Your task to perform on an android device: Go to Android settings Image 0: 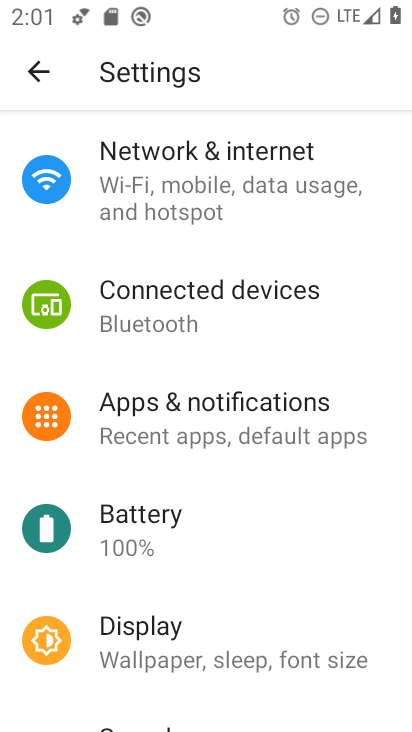
Step 0: drag from (246, 583) to (205, 11)
Your task to perform on an android device: Go to Android settings Image 1: 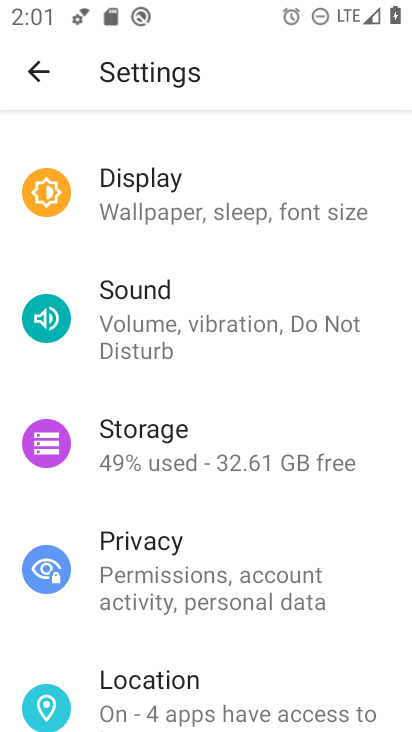
Step 1: drag from (247, 643) to (204, 13)
Your task to perform on an android device: Go to Android settings Image 2: 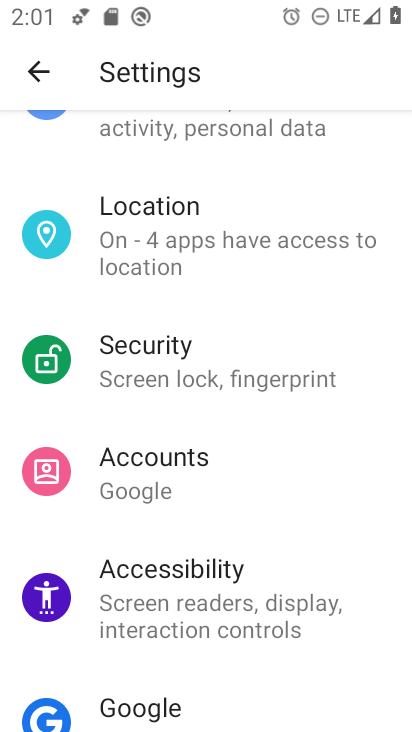
Step 2: drag from (224, 506) to (185, 231)
Your task to perform on an android device: Go to Android settings Image 3: 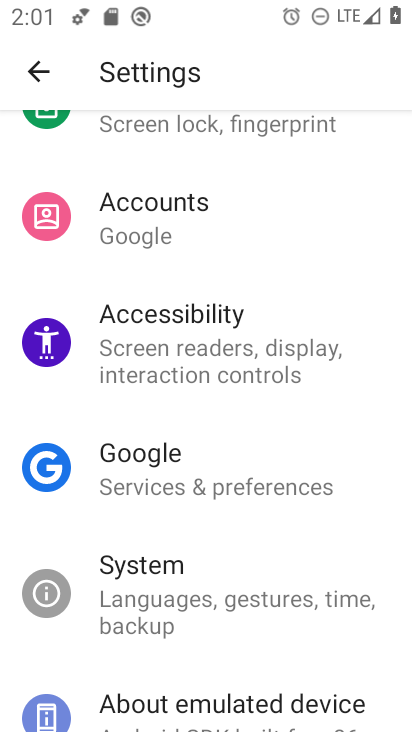
Step 3: click (167, 684)
Your task to perform on an android device: Go to Android settings Image 4: 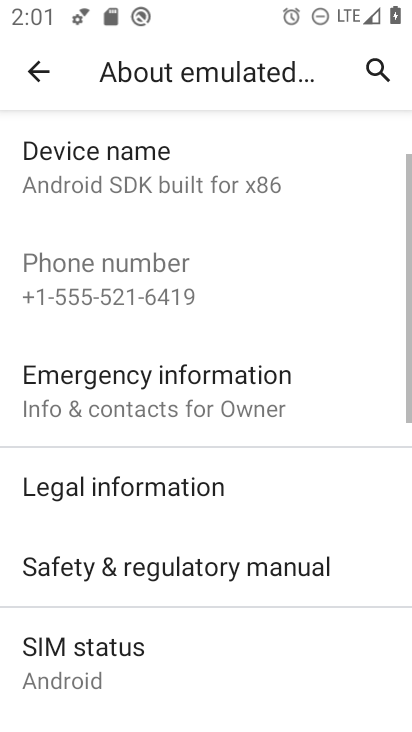
Step 4: task complete